Your task to perform on an android device: Go to Android settings Image 0: 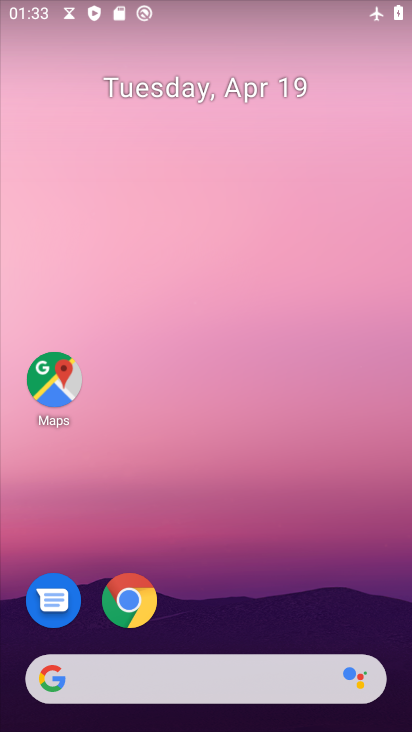
Step 0: drag from (231, 638) to (265, 48)
Your task to perform on an android device: Go to Android settings Image 1: 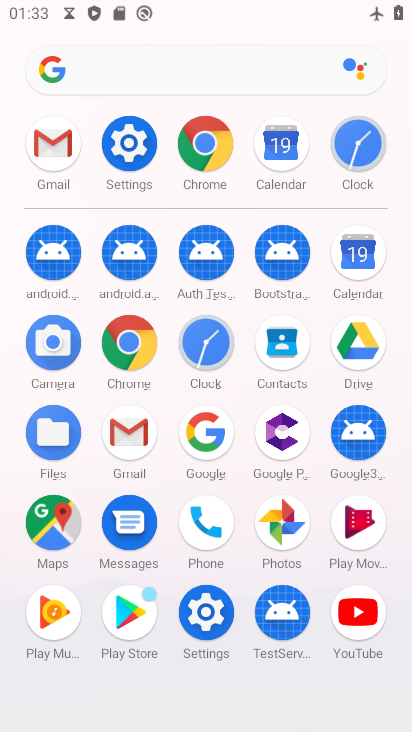
Step 1: click (130, 142)
Your task to perform on an android device: Go to Android settings Image 2: 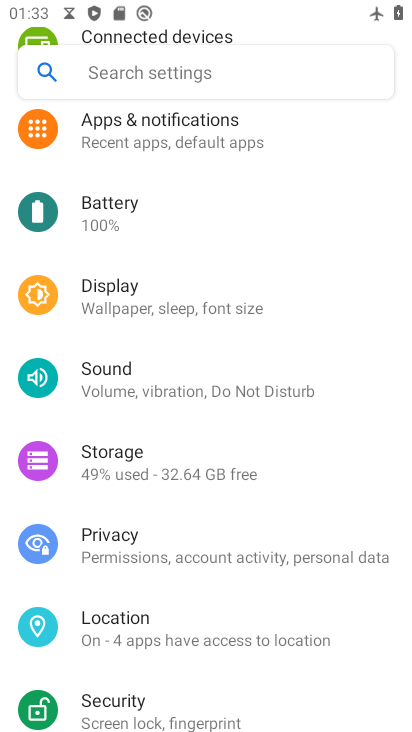
Step 2: task complete